Your task to perform on an android device: Look up the best rated wireless earbuds on Ali Express Image 0: 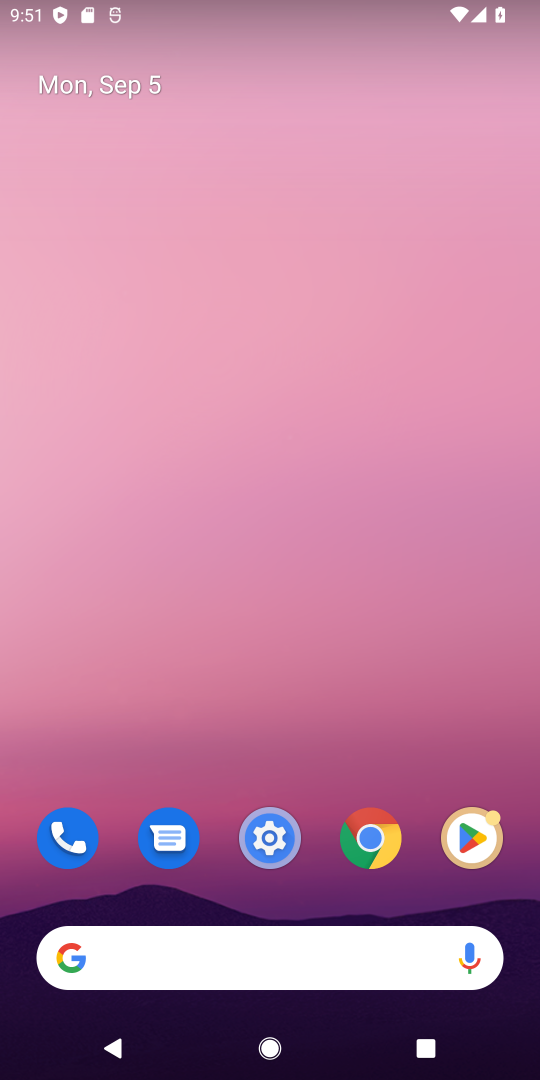
Step 0: click (254, 954)
Your task to perform on an android device: Look up the best rated wireless earbuds on Ali Express Image 1: 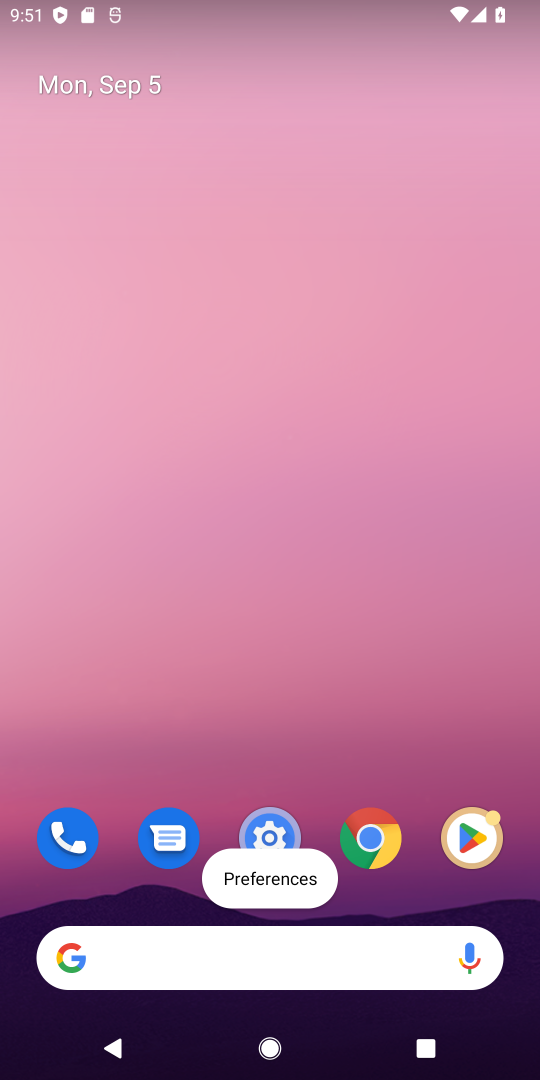
Step 1: click (252, 956)
Your task to perform on an android device: Look up the best rated wireless earbuds on Ali Express Image 2: 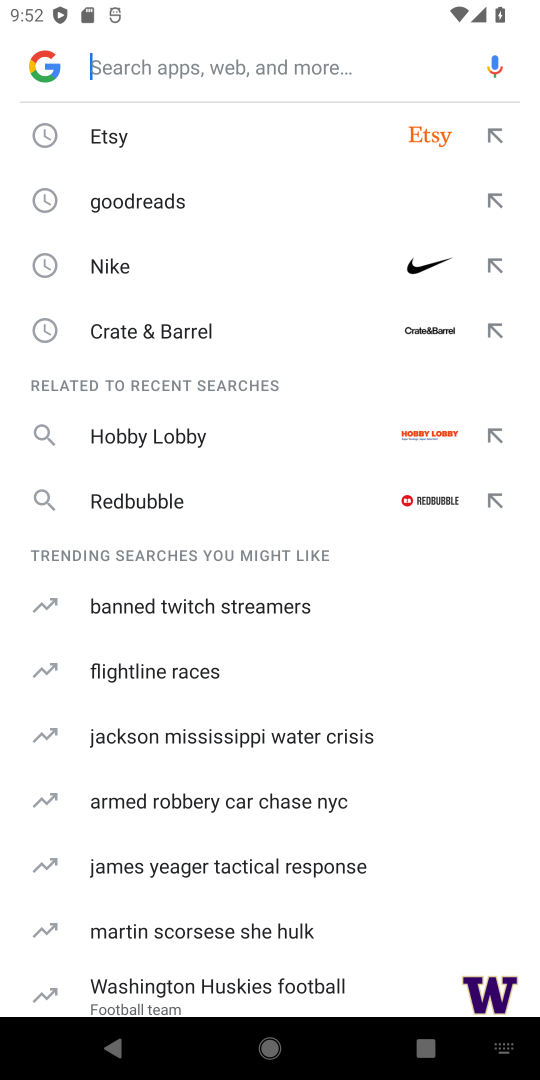
Step 2: type "Ali Express"
Your task to perform on an android device: Look up the best rated wireless earbuds on Ali Express Image 3: 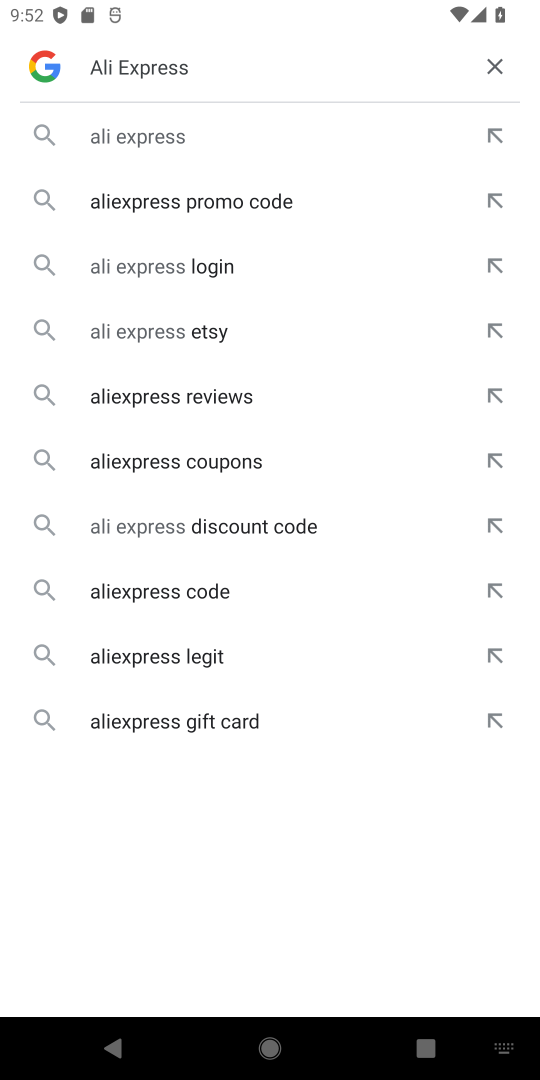
Step 3: click (152, 132)
Your task to perform on an android device: Look up the best rated wireless earbuds on Ali Express Image 4: 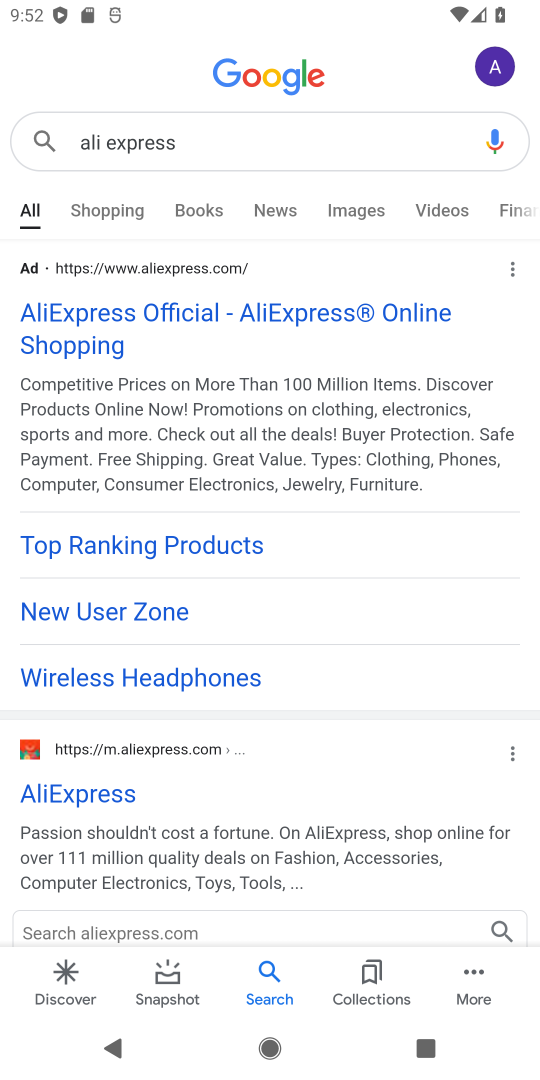
Step 4: click (125, 792)
Your task to perform on an android device: Look up the best rated wireless earbuds on Ali Express Image 5: 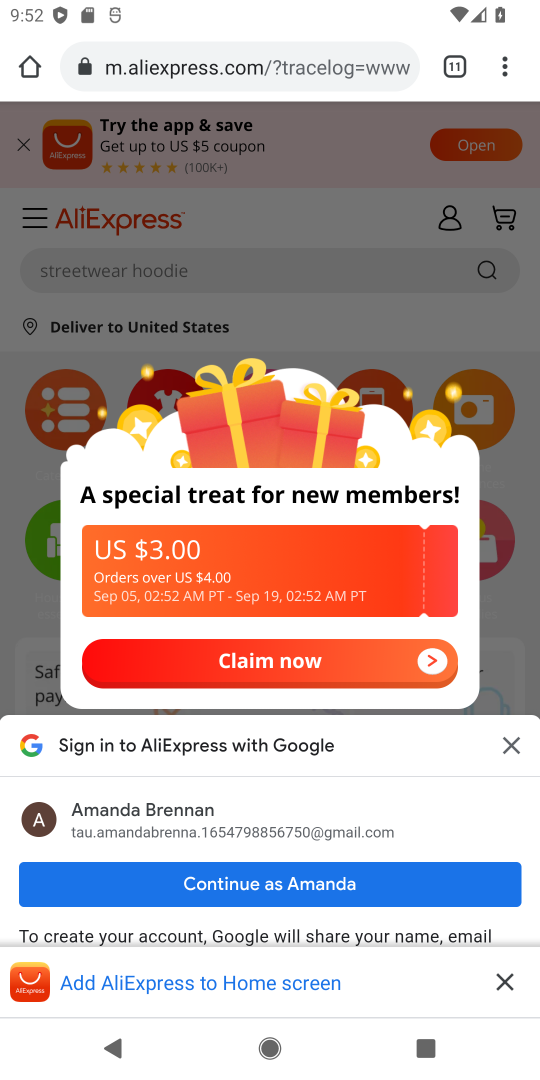
Step 5: click (526, 748)
Your task to perform on an android device: Look up the best rated wireless earbuds on Ali Express Image 6: 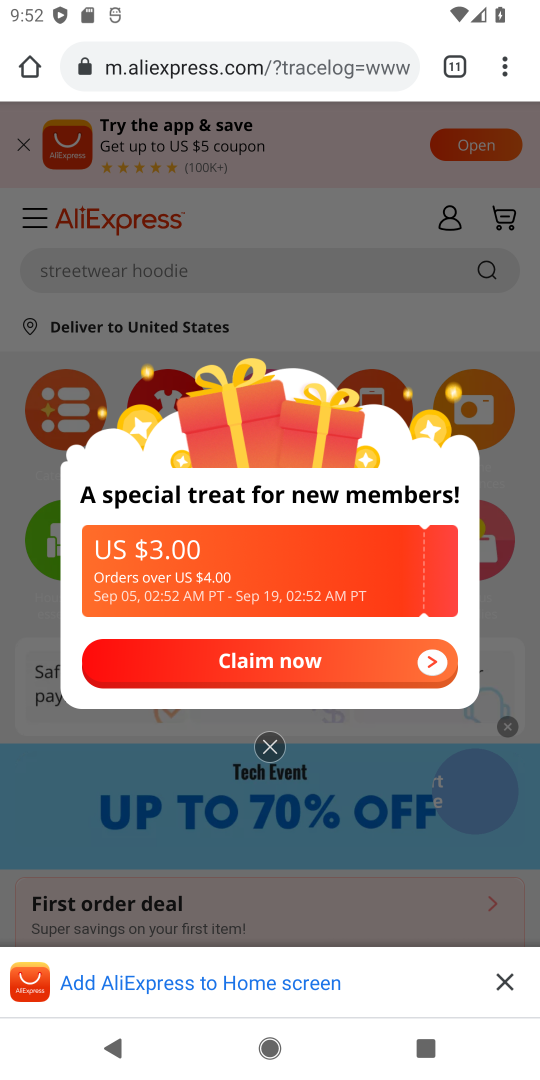
Step 6: click (254, 740)
Your task to perform on an android device: Look up the best rated wireless earbuds on Ali Express Image 7: 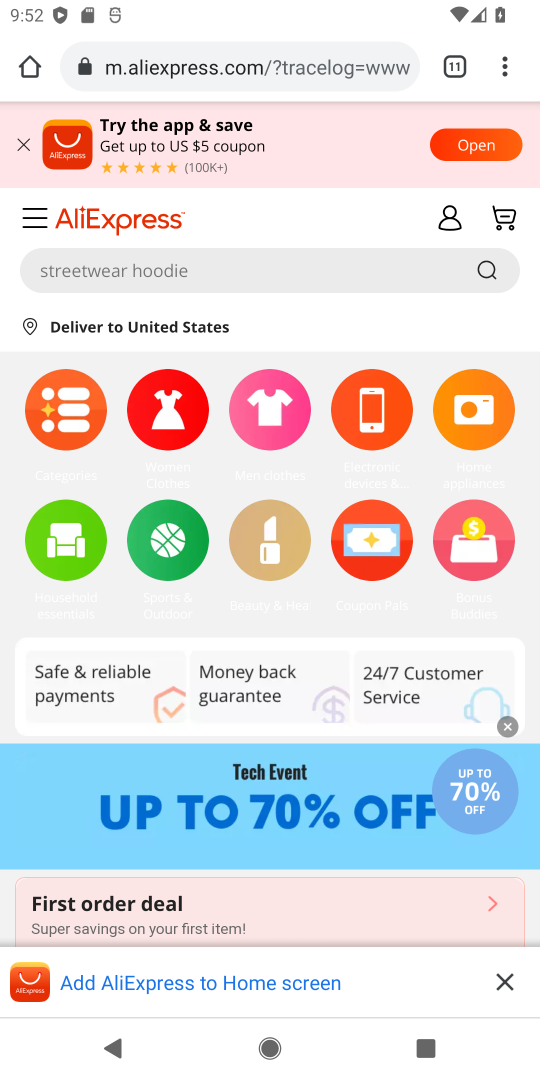
Step 7: click (223, 285)
Your task to perform on an android device: Look up the best rated wireless earbuds on Ali Express Image 8: 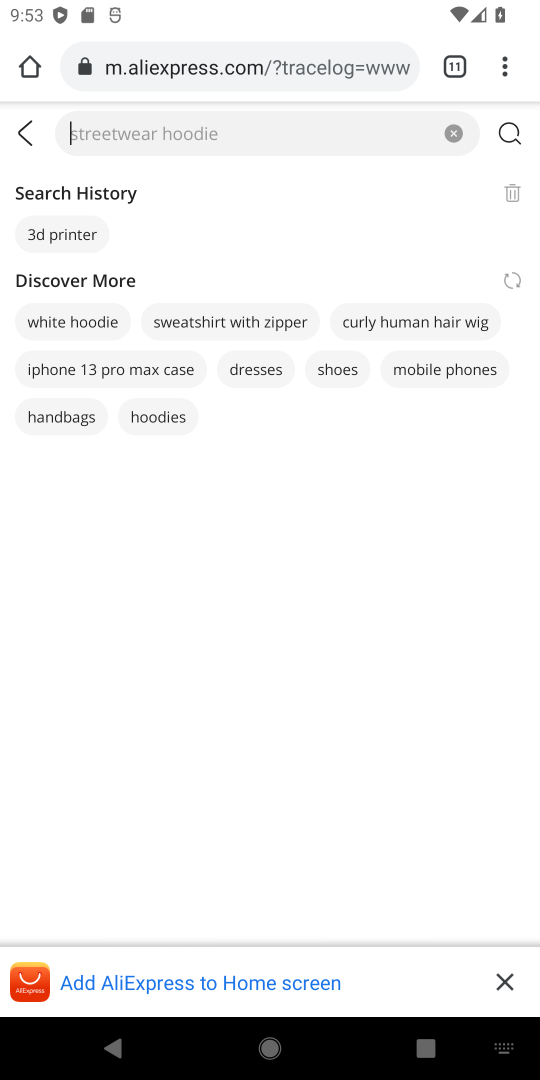
Step 8: type "wireless earbuds"
Your task to perform on an android device: Look up the best rated wireless earbuds on Ali Express Image 9: 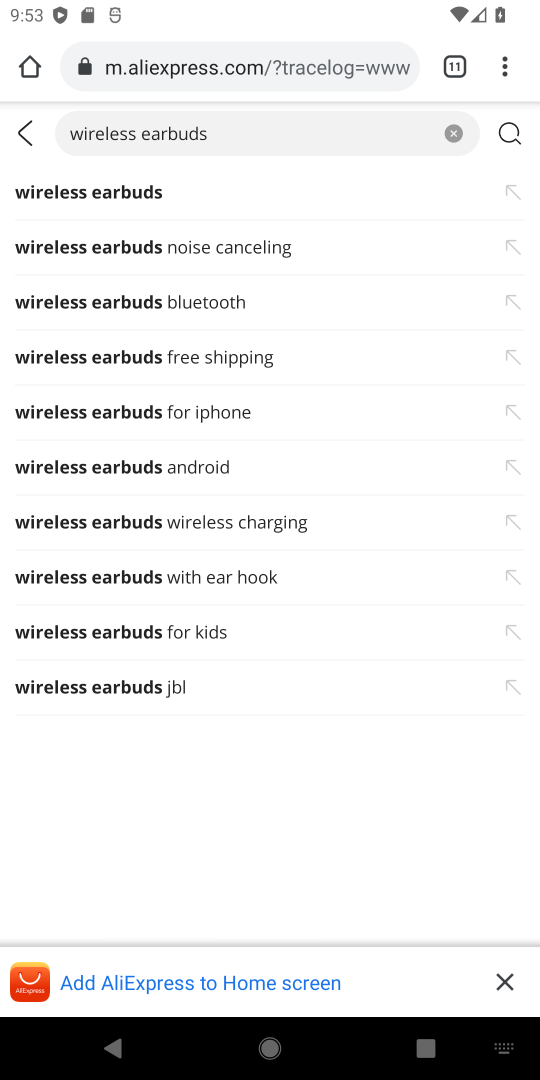
Step 9: click (138, 184)
Your task to perform on an android device: Look up the best rated wireless earbuds on Ali Express Image 10: 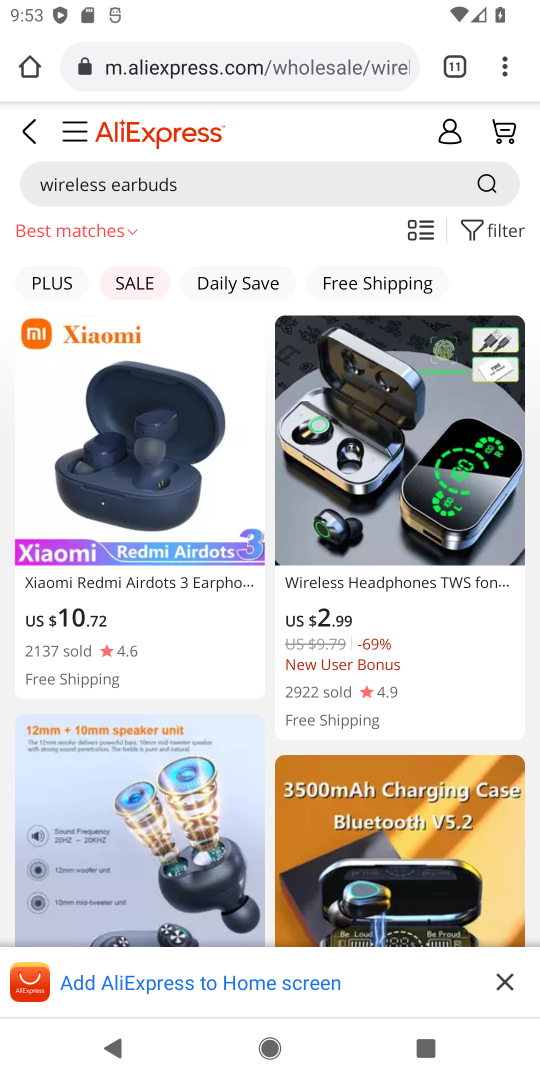
Step 10: click (502, 176)
Your task to perform on an android device: Look up the best rated wireless earbuds on Ali Express Image 11: 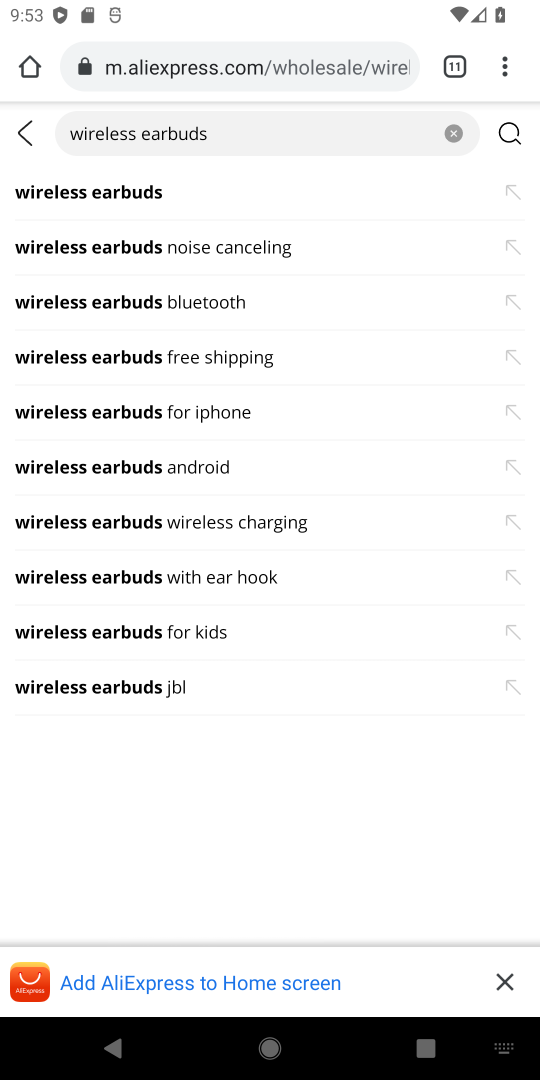
Step 11: click (145, 181)
Your task to perform on an android device: Look up the best rated wireless earbuds on Ali Express Image 12: 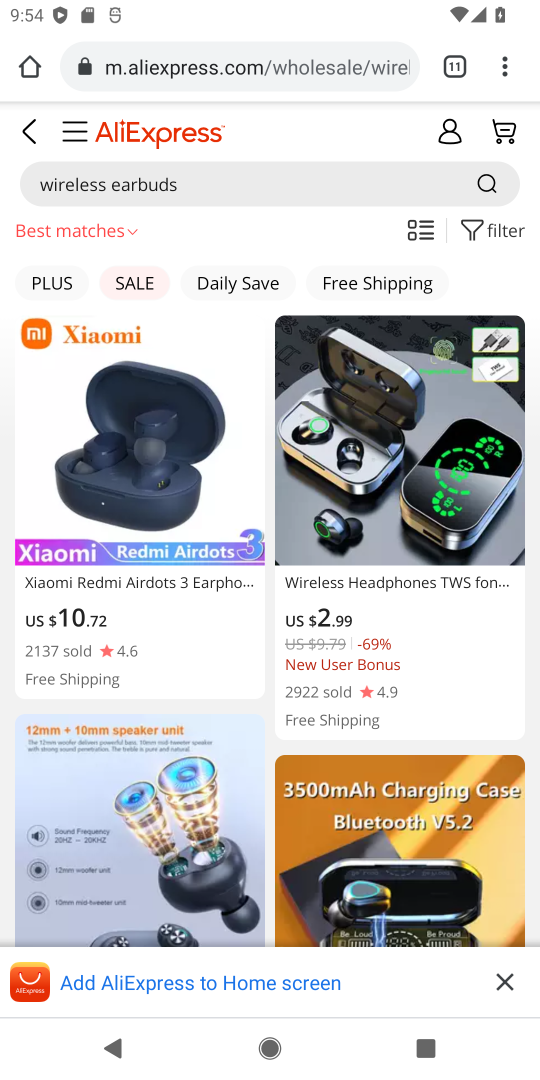
Step 12: task complete